Your task to perform on an android device: change notifications settings Image 0: 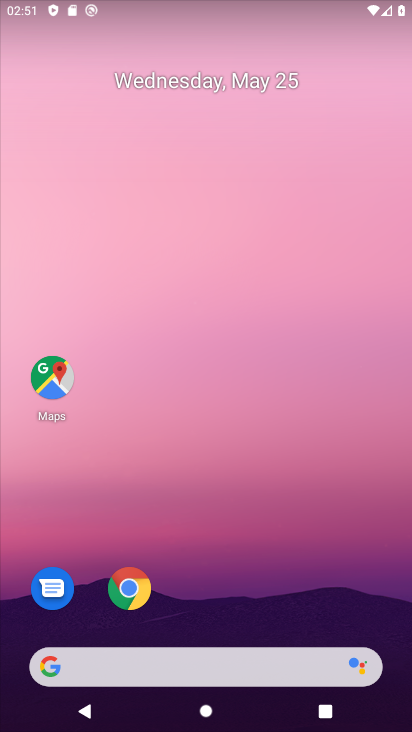
Step 0: press home button
Your task to perform on an android device: change notifications settings Image 1: 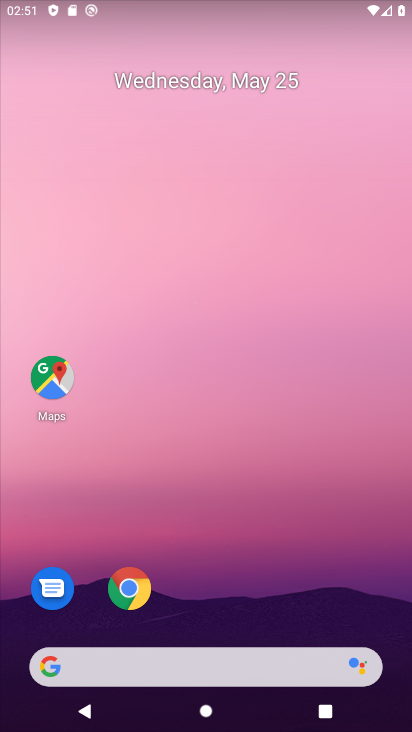
Step 1: drag from (380, 614) to (151, 8)
Your task to perform on an android device: change notifications settings Image 2: 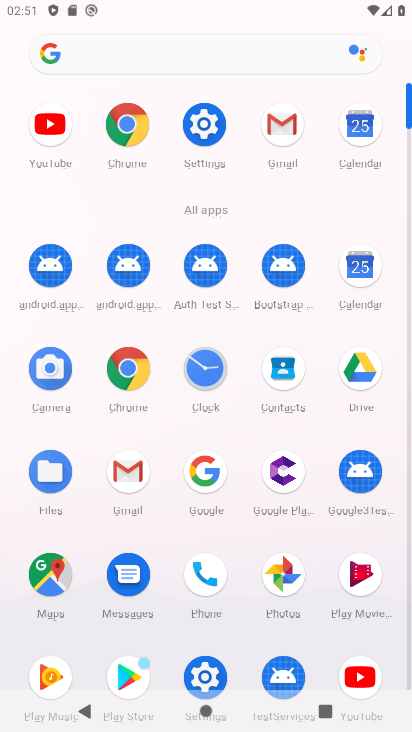
Step 2: click (197, 661)
Your task to perform on an android device: change notifications settings Image 3: 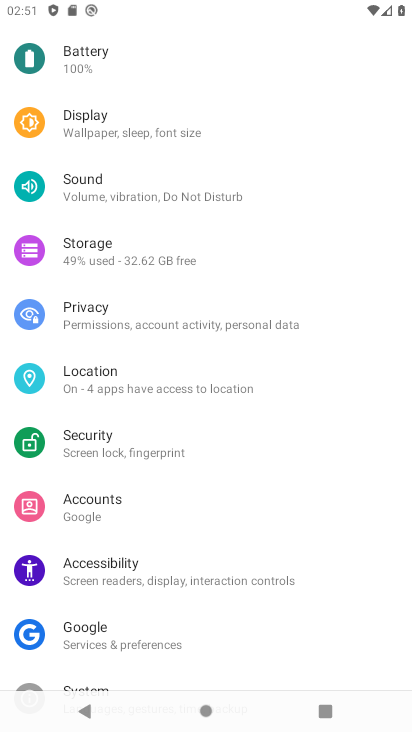
Step 3: drag from (174, 42) to (181, 301)
Your task to perform on an android device: change notifications settings Image 4: 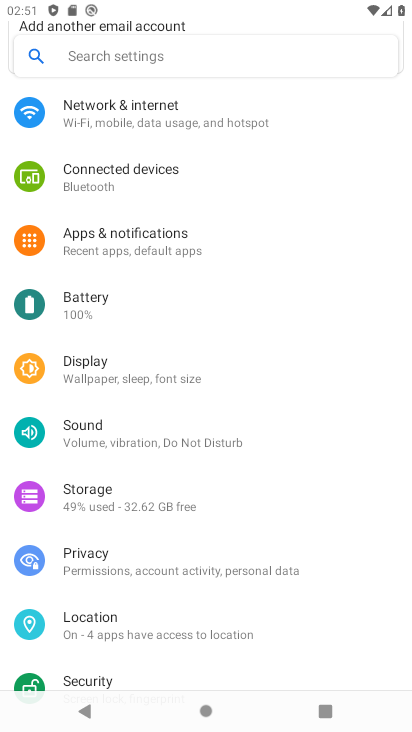
Step 4: click (168, 235)
Your task to perform on an android device: change notifications settings Image 5: 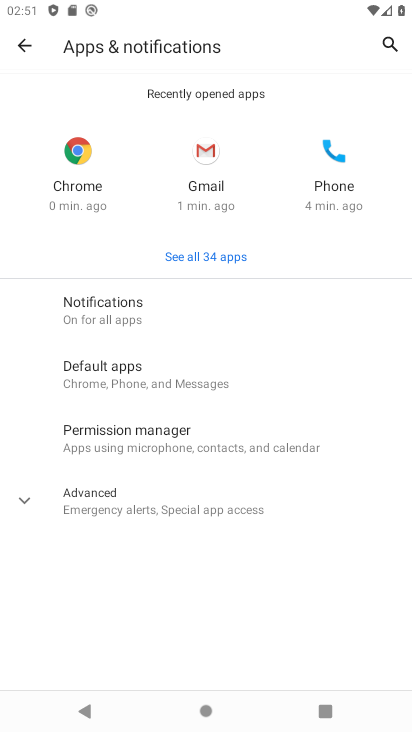
Step 5: task complete